Your task to perform on an android device: allow cookies in the chrome app Image 0: 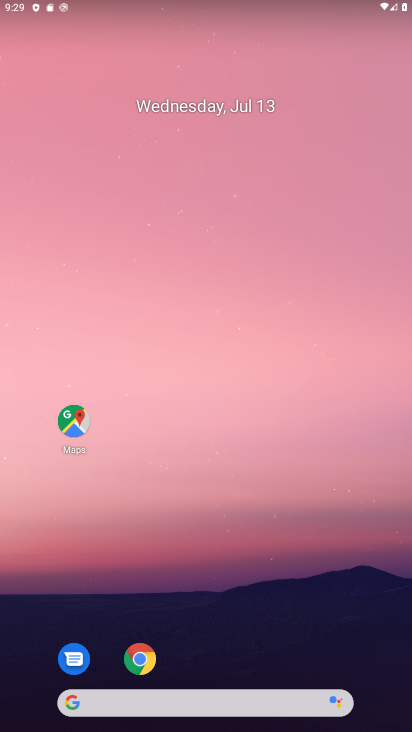
Step 0: click (142, 660)
Your task to perform on an android device: allow cookies in the chrome app Image 1: 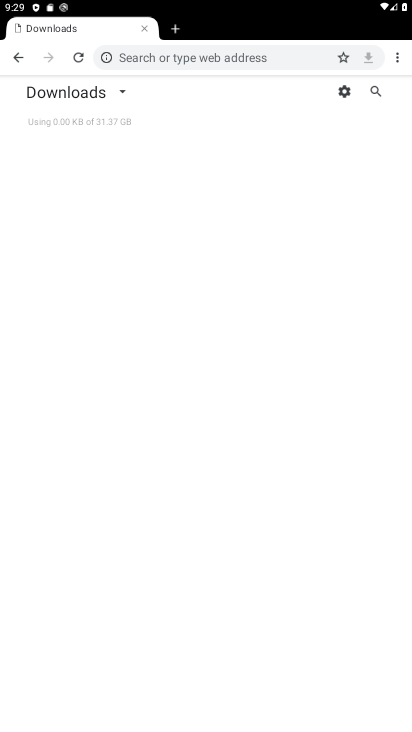
Step 1: click (397, 58)
Your task to perform on an android device: allow cookies in the chrome app Image 2: 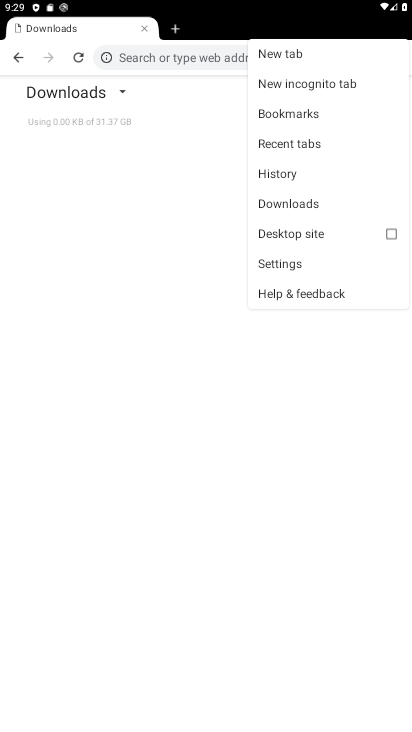
Step 2: click (287, 259)
Your task to perform on an android device: allow cookies in the chrome app Image 3: 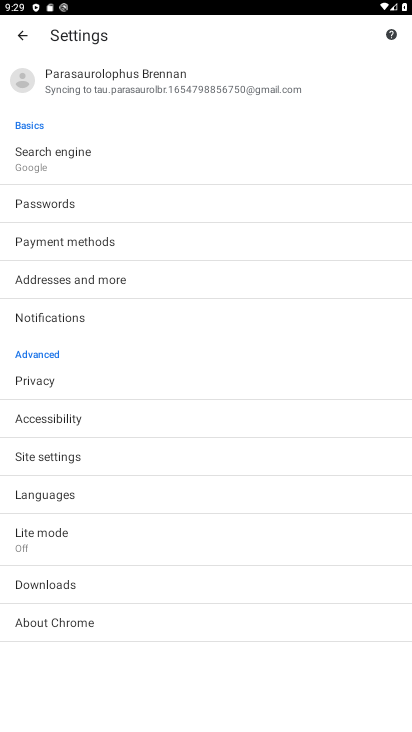
Step 3: click (45, 459)
Your task to perform on an android device: allow cookies in the chrome app Image 4: 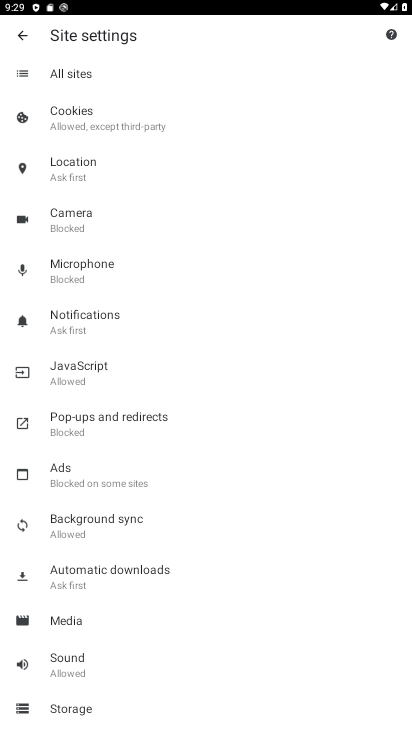
Step 4: click (83, 105)
Your task to perform on an android device: allow cookies in the chrome app Image 5: 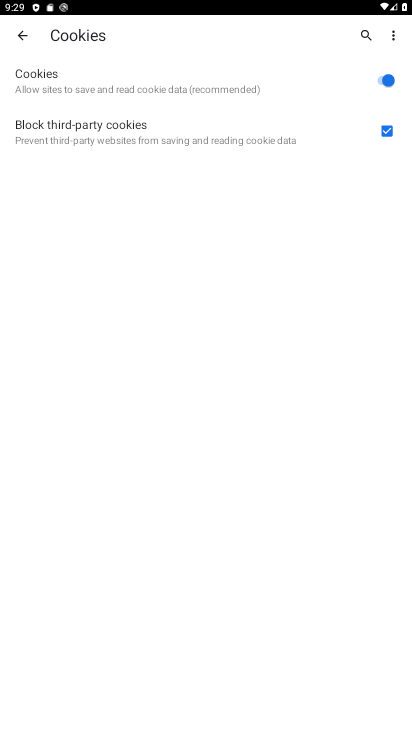
Step 5: task complete